Your task to perform on an android device: Open Google Image 0: 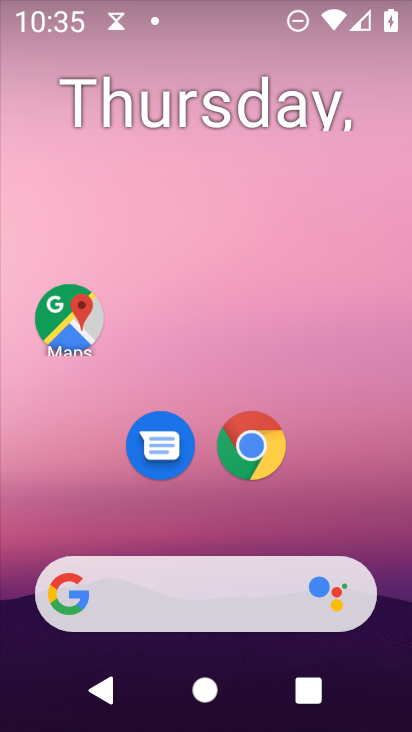
Step 0: drag from (233, 728) to (232, 117)
Your task to perform on an android device: Open Google Image 1: 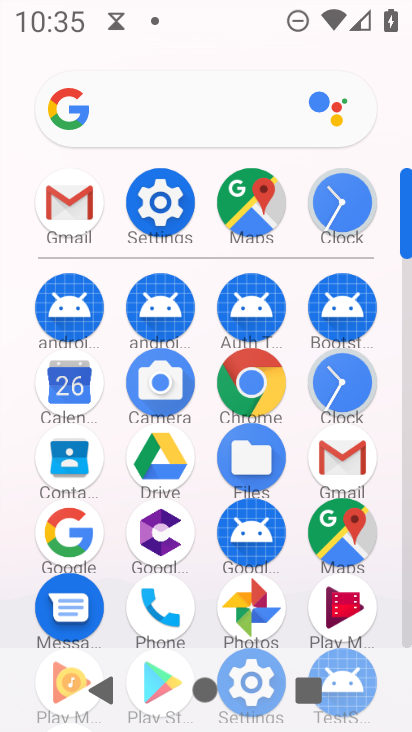
Step 1: click (73, 527)
Your task to perform on an android device: Open Google Image 2: 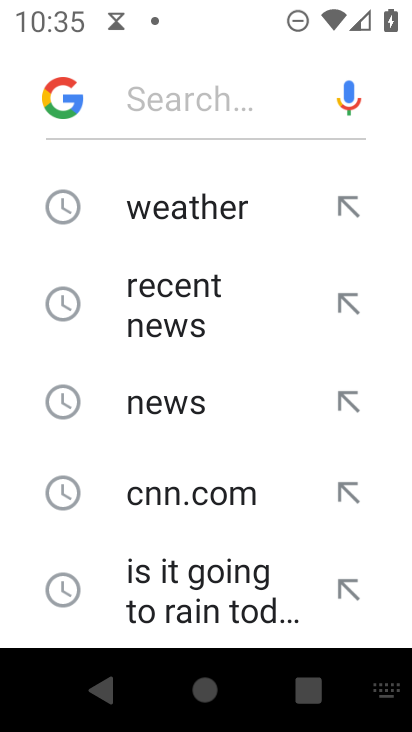
Step 2: task complete